Your task to perform on an android device: open sync settings in chrome Image 0: 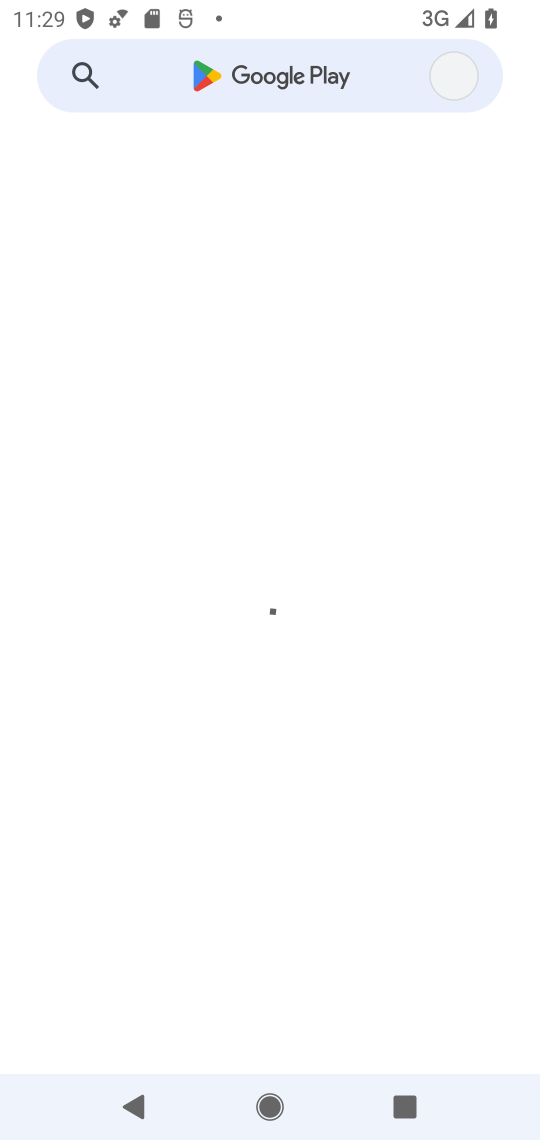
Step 0: click (267, 785)
Your task to perform on an android device: open sync settings in chrome Image 1: 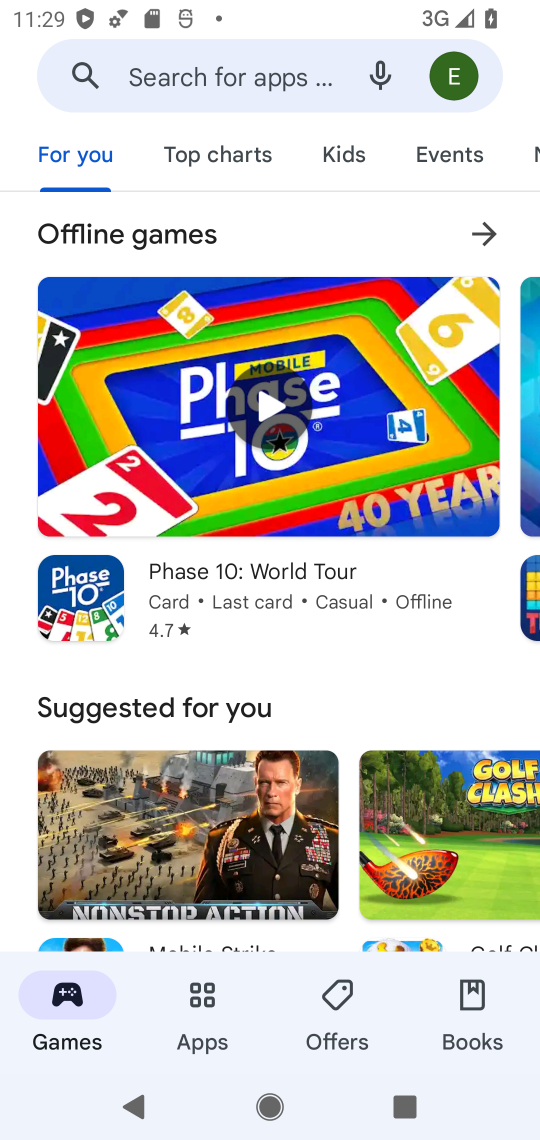
Step 1: press home button
Your task to perform on an android device: open sync settings in chrome Image 2: 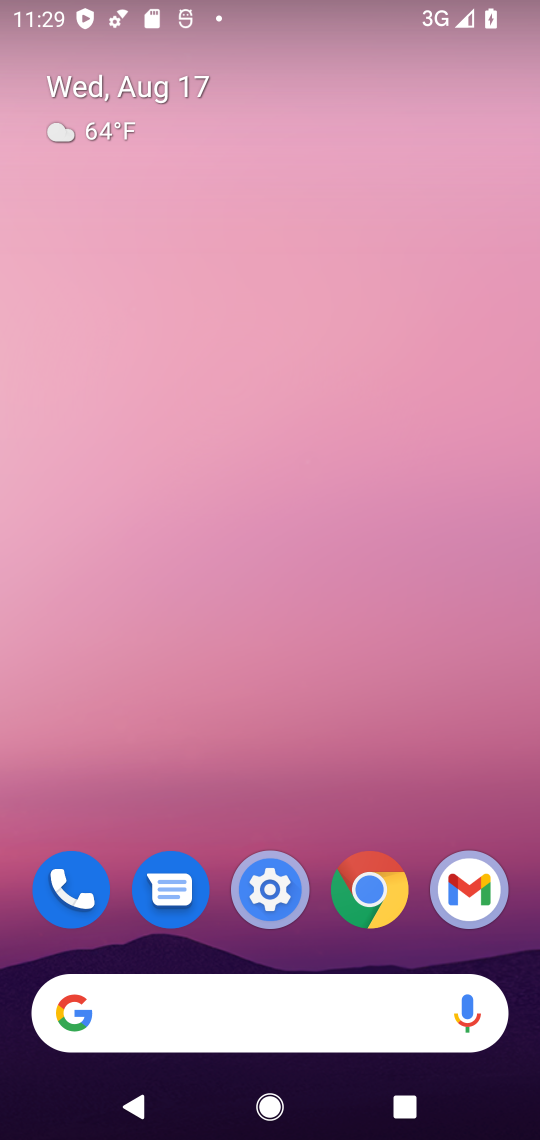
Step 2: click (373, 890)
Your task to perform on an android device: open sync settings in chrome Image 3: 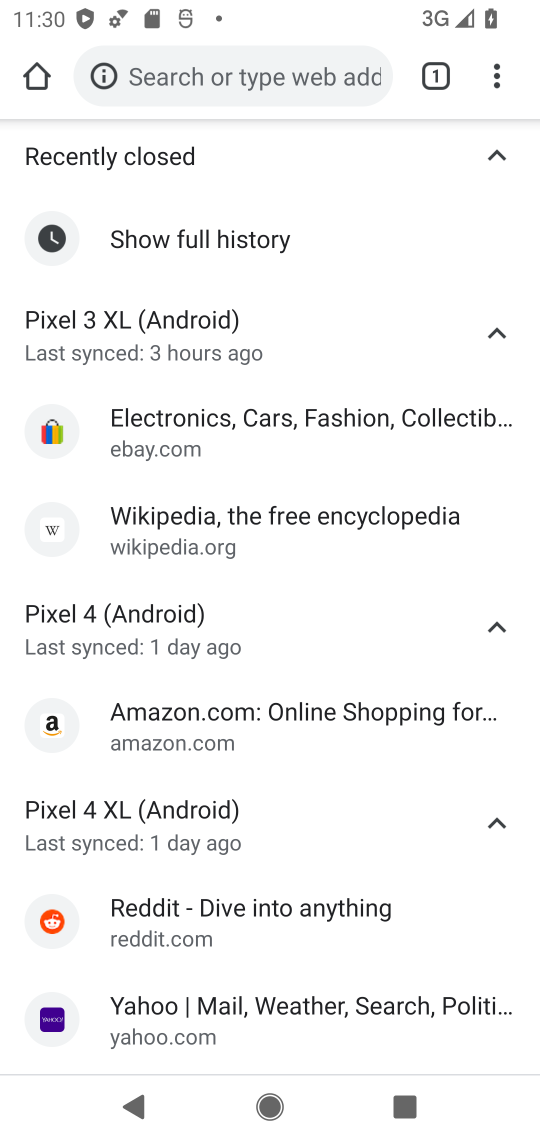
Step 3: click (497, 80)
Your task to perform on an android device: open sync settings in chrome Image 4: 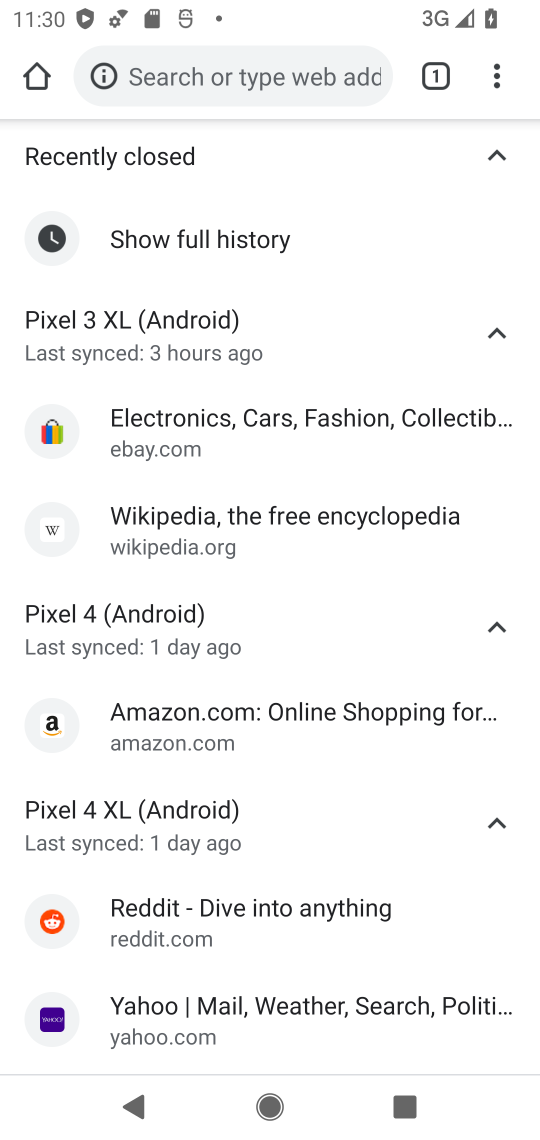
Step 4: click (497, 86)
Your task to perform on an android device: open sync settings in chrome Image 5: 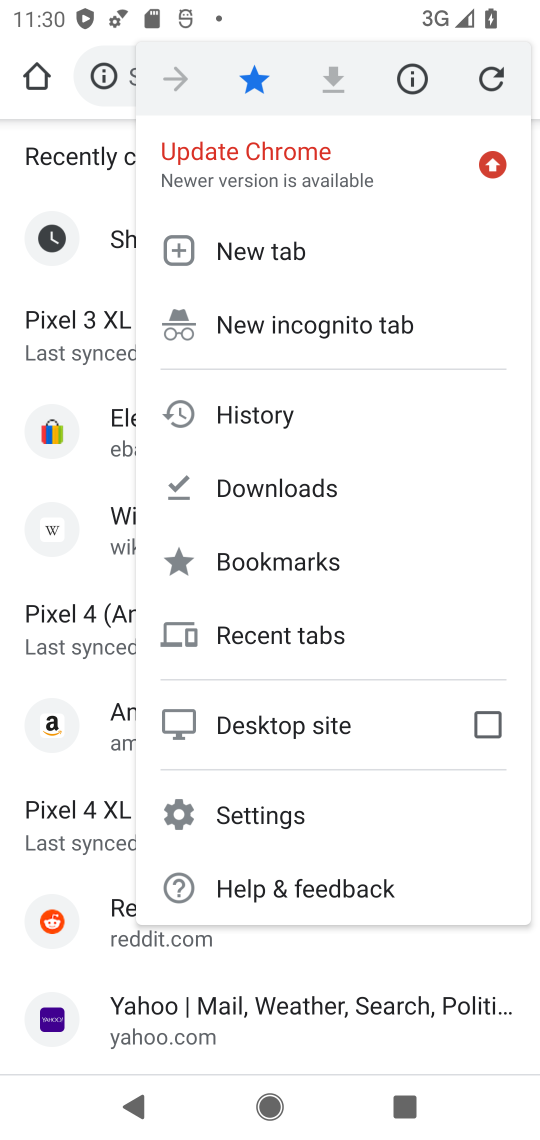
Step 5: click (277, 809)
Your task to perform on an android device: open sync settings in chrome Image 6: 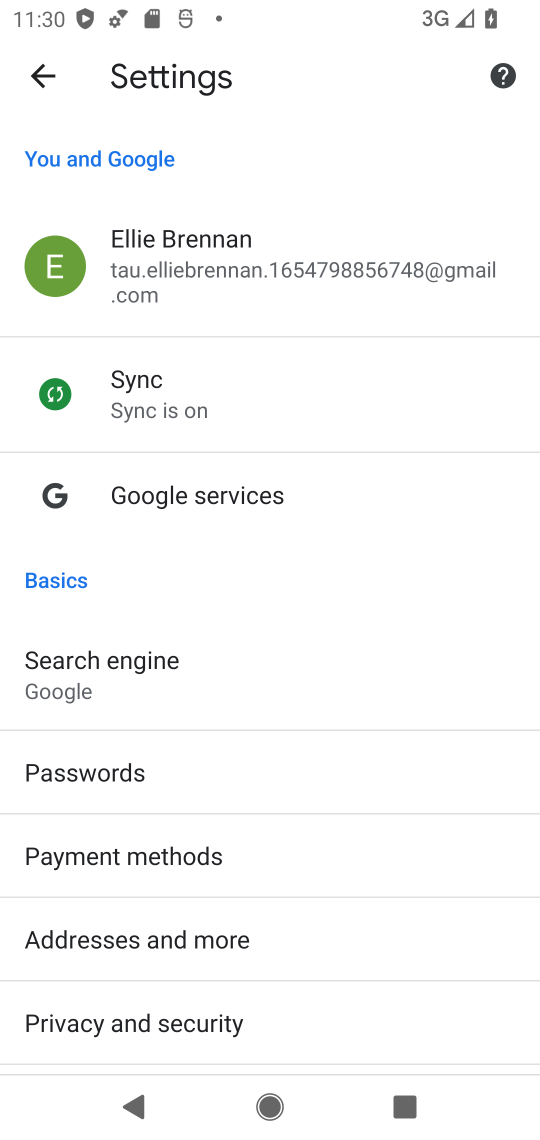
Step 6: click (264, 252)
Your task to perform on an android device: open sync settings in chrome Image 7: 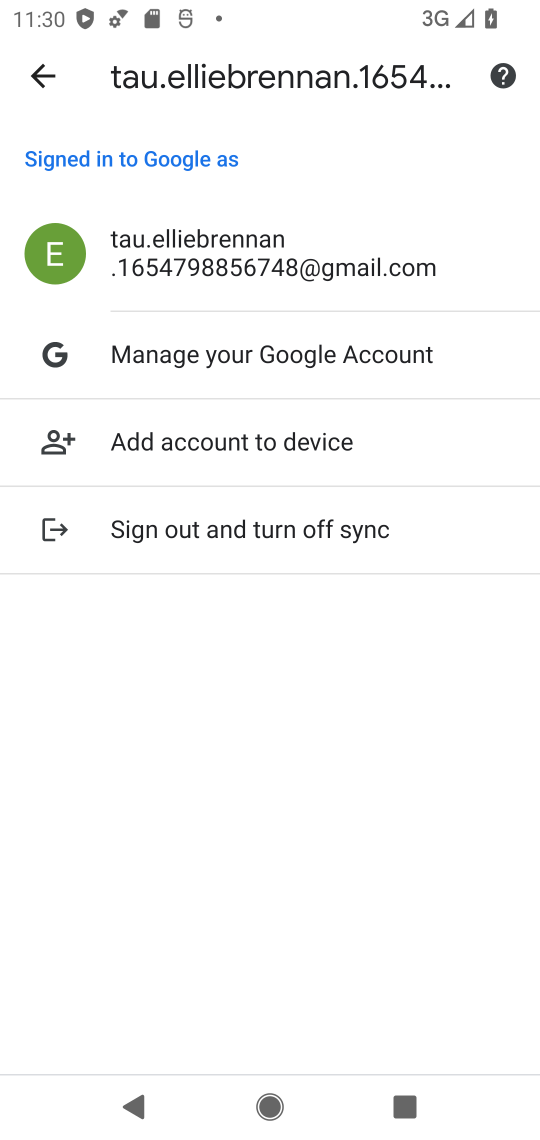
Step 7: click (48, 69)
Your task to perform on an android device: open sync settings in chrome Image 8: 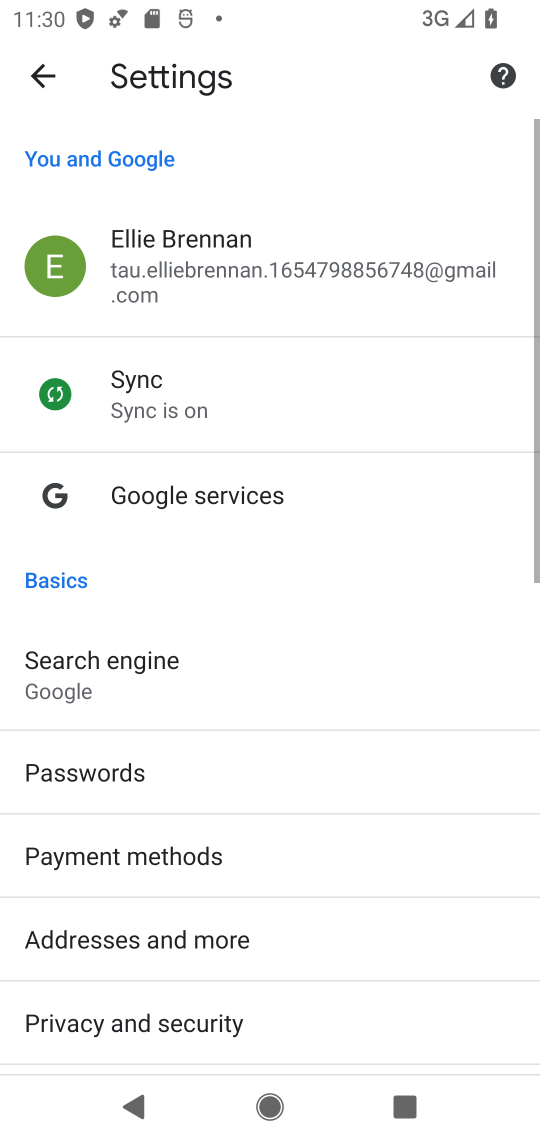
Step 8: click (181, 396)
Your task to perform on an android device: open sync settings in chrome Image 9: 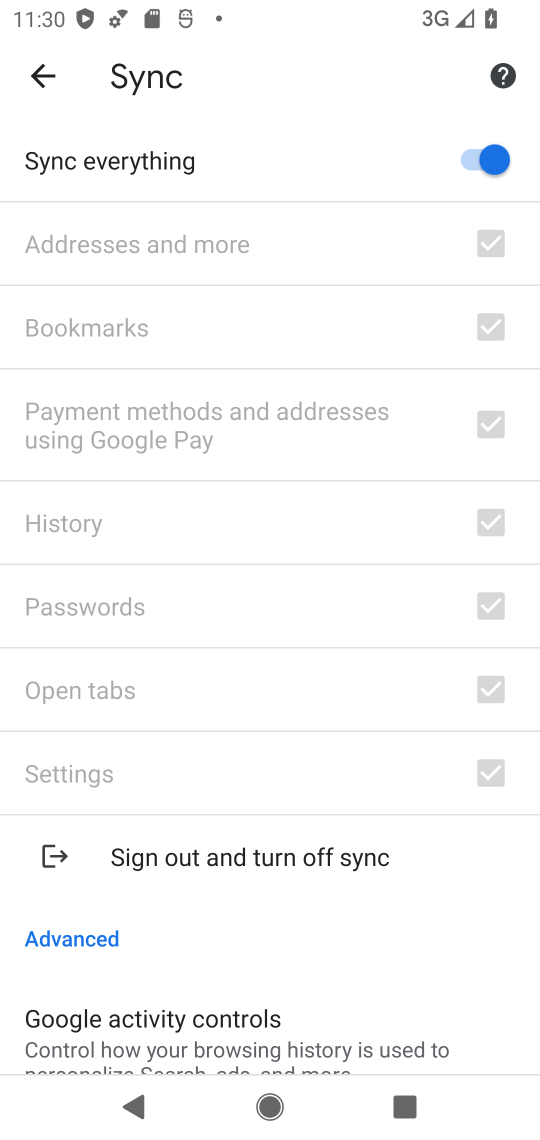
Step 9: task complete